Your task to perform on an android device: Check the news Image 0: 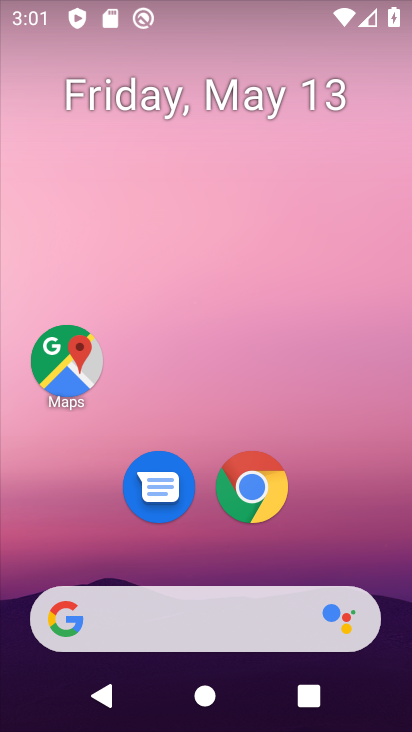
Step 0: drag from (359, 364) to (376, 89)
Your task to perform on an android device: Check the news Image 1: 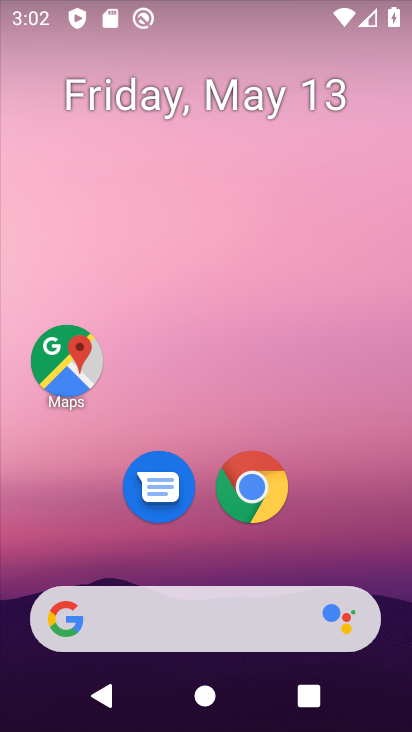
Step 1: drag from (336, 482) to (336, 95)
Your task to perform on an android device: Check the news Image 2: 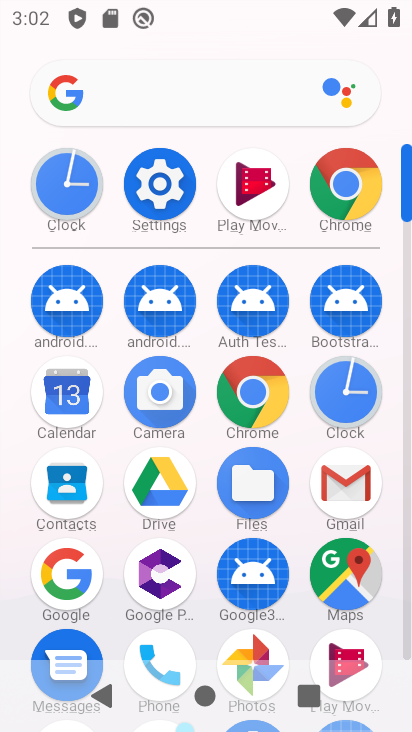
Step 2: click (340, 190)
Your task to perform on an android device: Check the news Image 3: 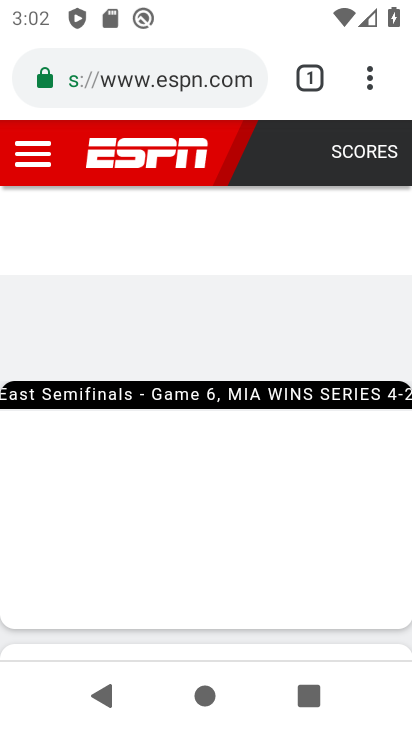
Step 3: task complete